Your task to perform on an android device: Do I have any events this weekend? Image 0: 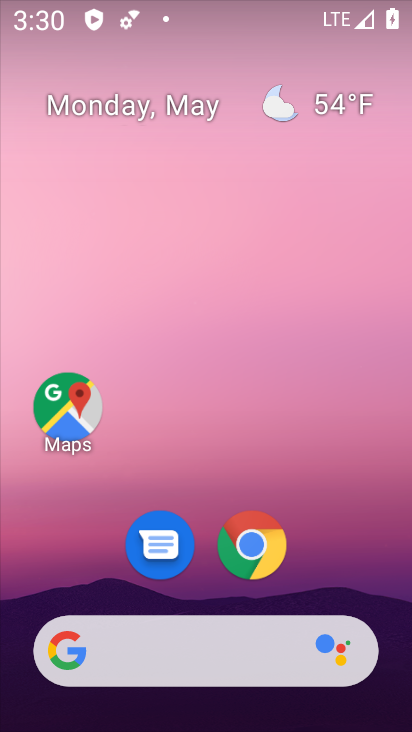
Step 0: drag from (388, 642) to (244, 42)
Your task to perform on an android device: Do I have any events this weekend? Image 1: 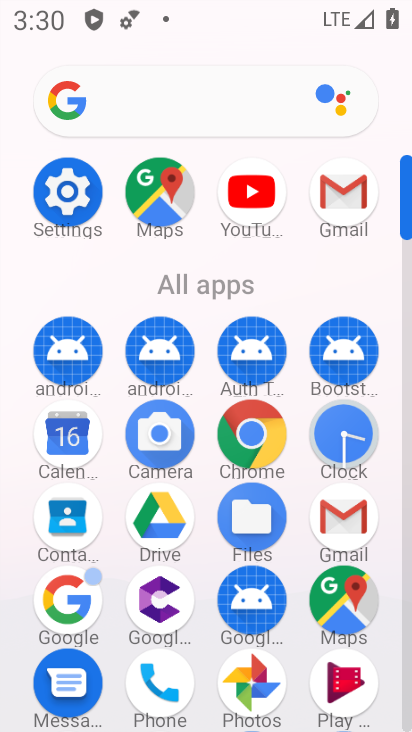
Step 1: click (62, 434)
Your task to perform on an android device: Do I have any events this weekend? Image 2: 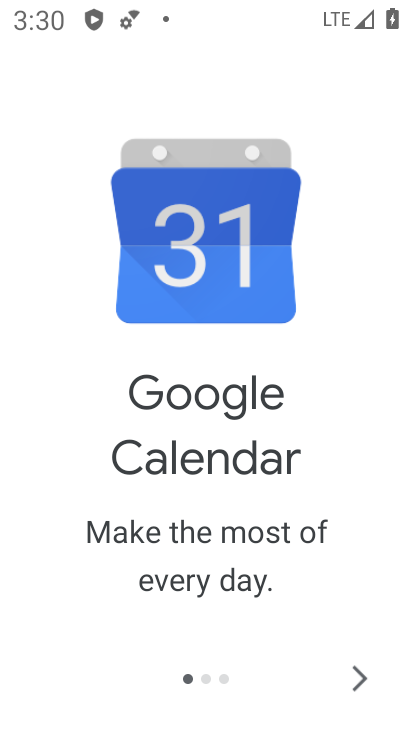
Step 2: click (359, 675)
Your task to perform on an android device: Do I have any events this weekend? Image 3: 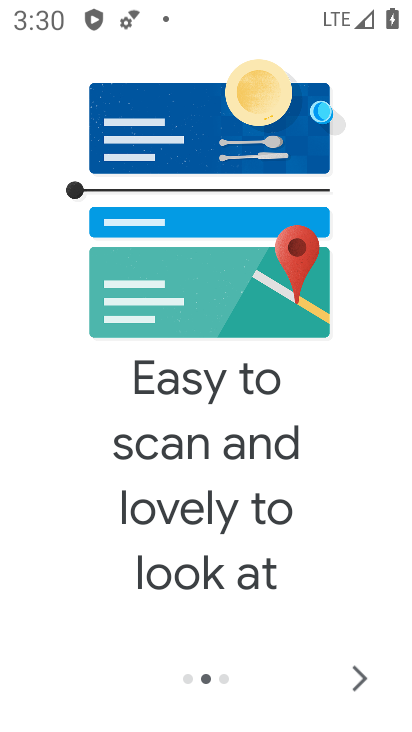
Step 3: click (359, 675)
Your task to perform on an android device: Do I have any events this weekend? Image 4: 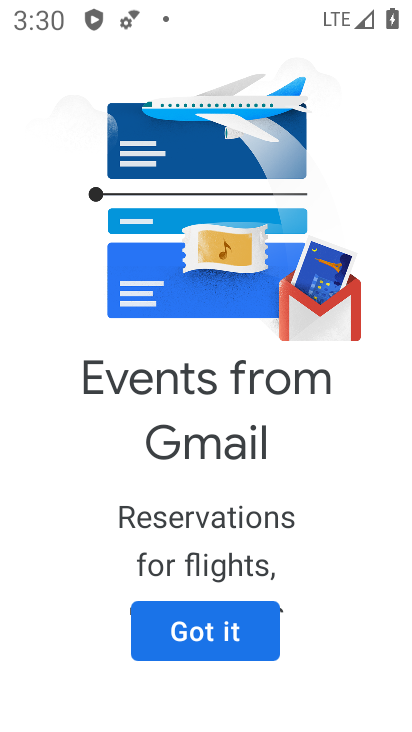
Step 4: click (194, 636)
Your task to perform on an android device: Do I have any events this weekend? Image 5: 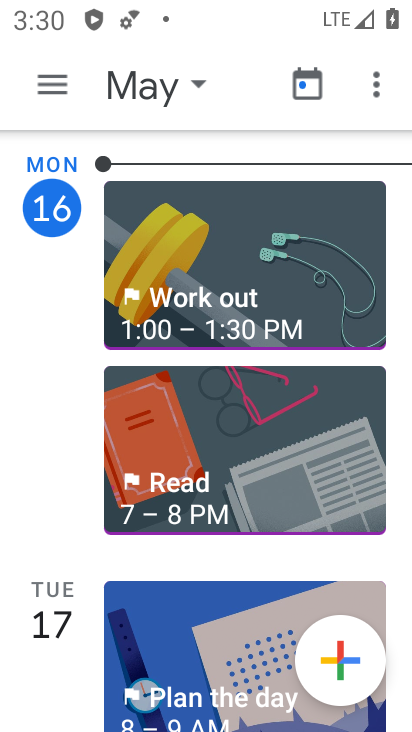
Step 5: click (56, 88)
Your task to perform on an android device: Do I have any events this weekend? Image 6: 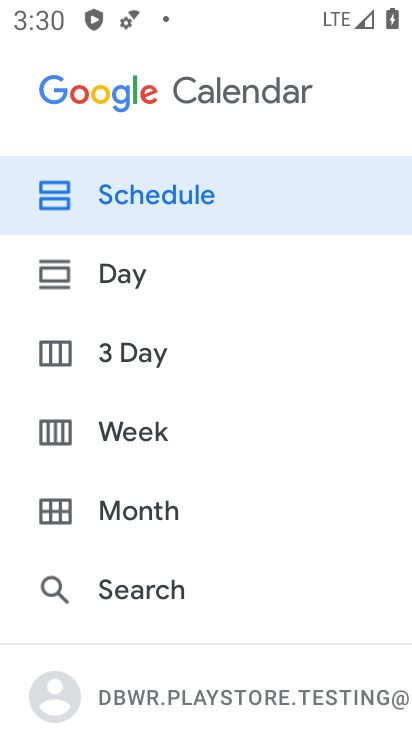
Step 6: click (141, 439)
Your task to perform on an android device: Do I have any events this weekend? Image 7: 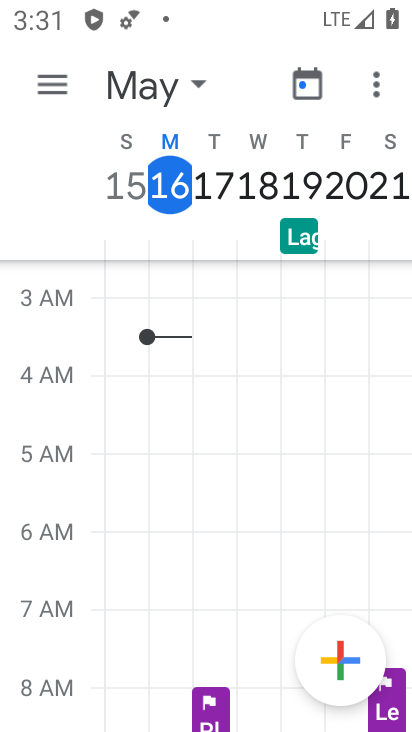
Step 7: task complete